Your task to perform on an android device: Open Google Chrome Image 0: 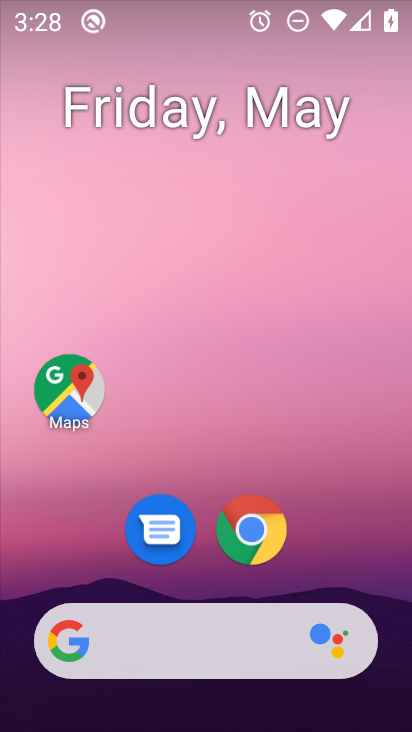
Step 0: click (261, 529)
Your task to perform on an android device: Open Google Chrome Image 1: 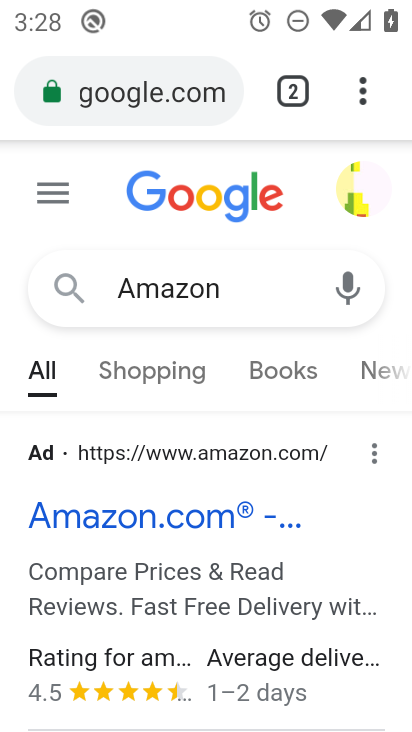
Step 1: task complete